Your task to perform on an android device: toggle pop-ups in chrome Image 0: 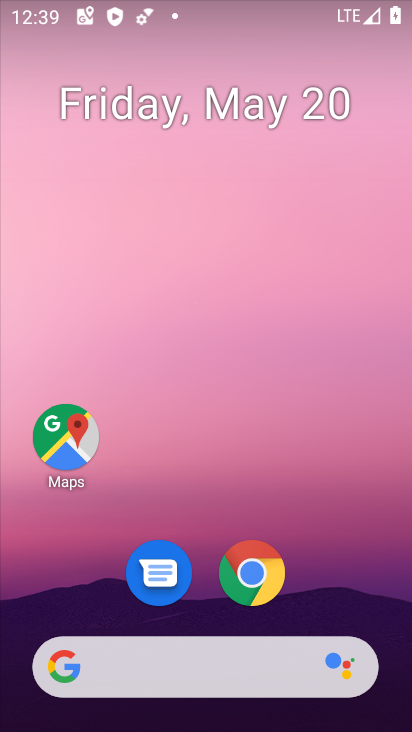
Step 0: drag from (216, 610) to (299, 108)
Your task to perform on an android device: toggle pop-ups in chrome Image 1: 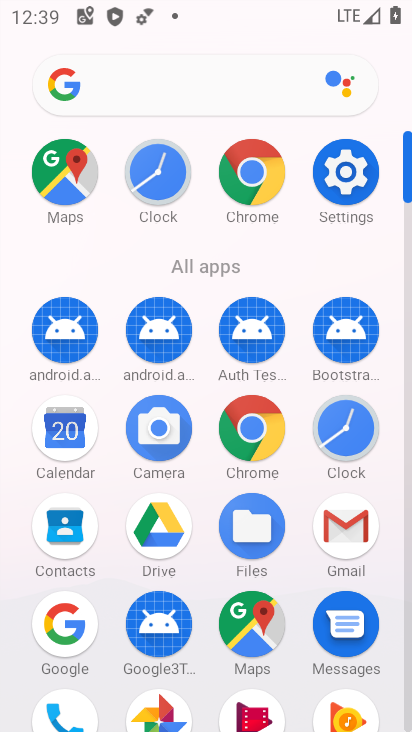
Step 1: click (247, 202)
Your task to perform on an android device: toggle pop-ups in chrome Image 2: 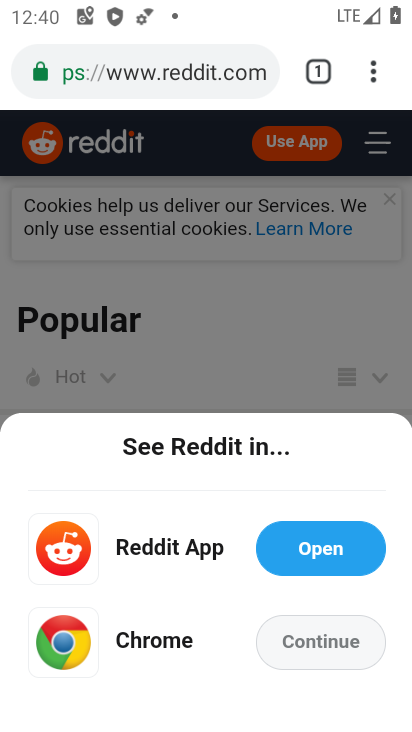
Step 2: click (370, 81)
Your task to perform on an android device: toggle pop-ups in chrome Image 3: 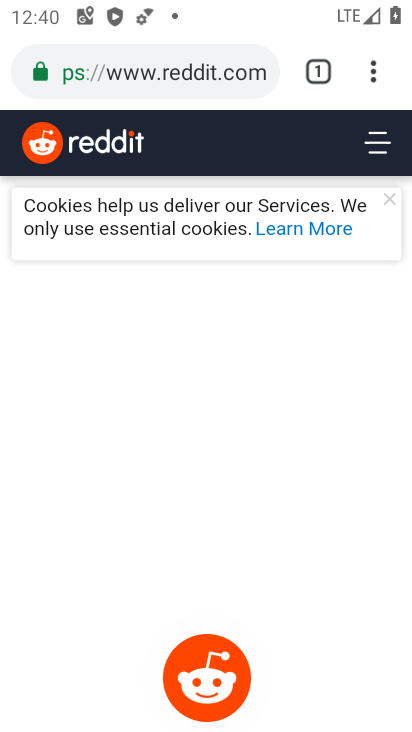
Step 3: click (374, 70)
Your task to perform on an android device: toggle pop-ups in chrome Image 4: 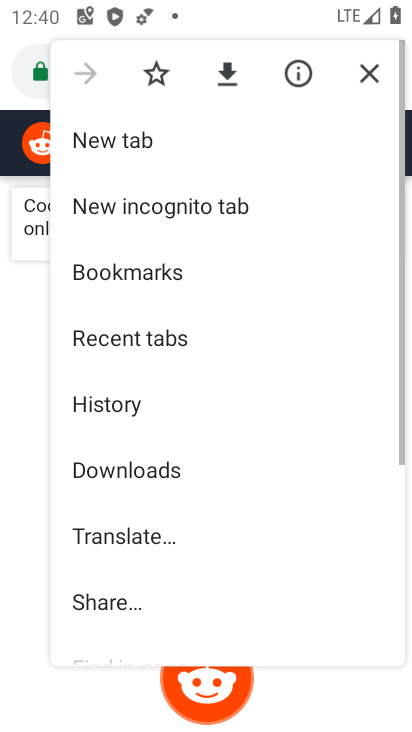
Step 4: drag from (122, 530) to (191, 205)
Your task to perform on an android device: toggle pop-ups in chrome Image 5: 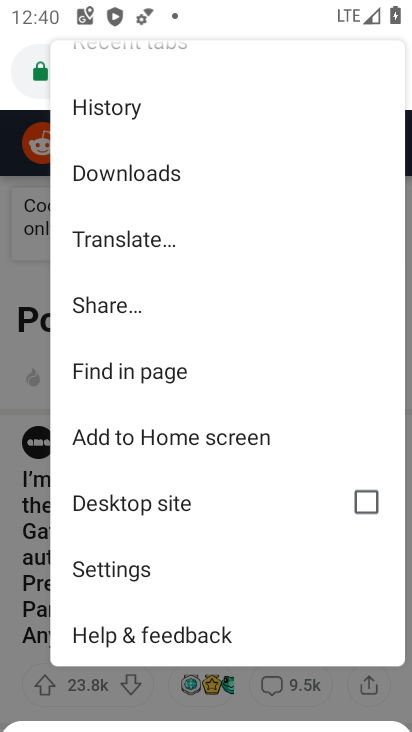
Step 5: click (138, 586)
Your task to perform on an android device: toggle pop-ups in chrome Image 6: 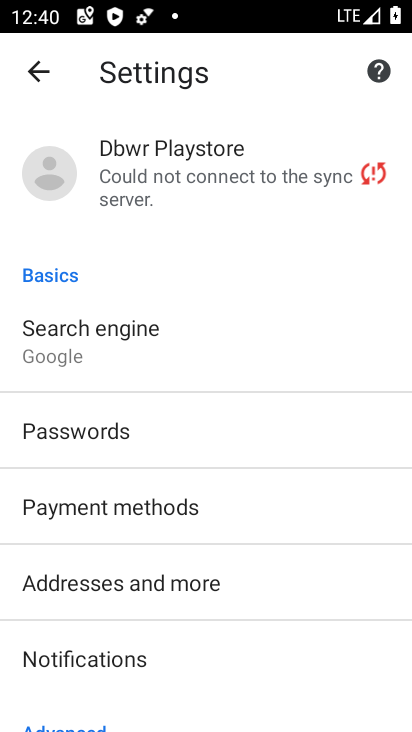
Step 6: drag from (136, 557) to (221, 217)
Your task to perform on an android device: toggle pop-ups in chrome Image 7: 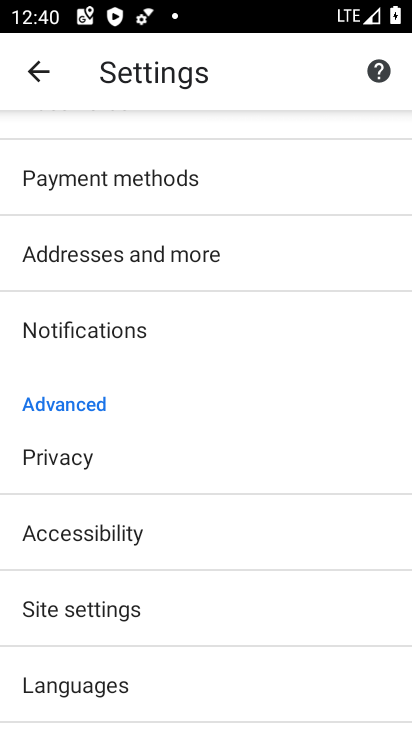
Step 7: drag from (126, 636) to (175, 470)
Your task to perform on an android device: toggle pop-ups in chrome Image 8: 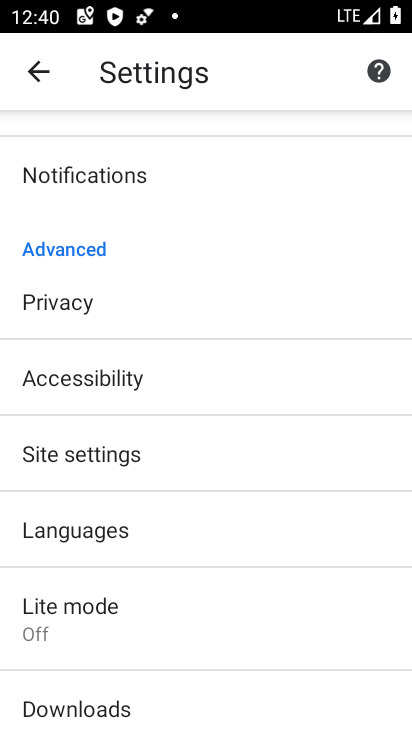
Step 8: drag from (113, 559) to (150, 442)
Your task to perform on an android device: toggle pop-ups in chrome Image 9: 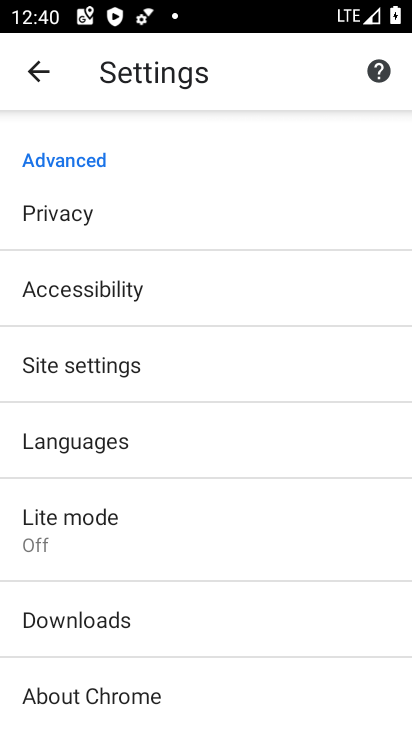
Step 9: click (120, 361)
Your task to perform on an android device: toggle pop-ups in chrome Image 10: 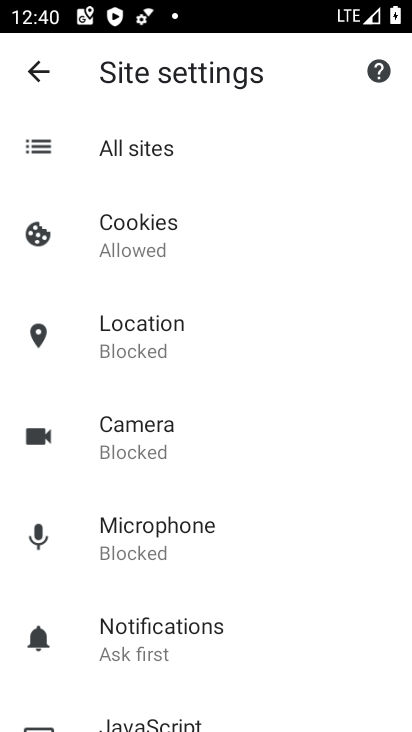
Step 10: drag from (174, 639) to (227, 415)
Your task to perform on an android device: toggle pop-ups in chrome Image 11: 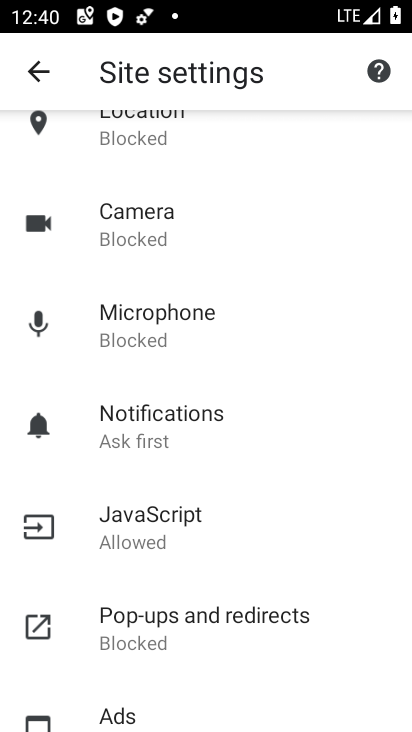
Step 11: click (156, 632)
Your task to perform on an android device: toggle pop-ups in chrome Image 12: 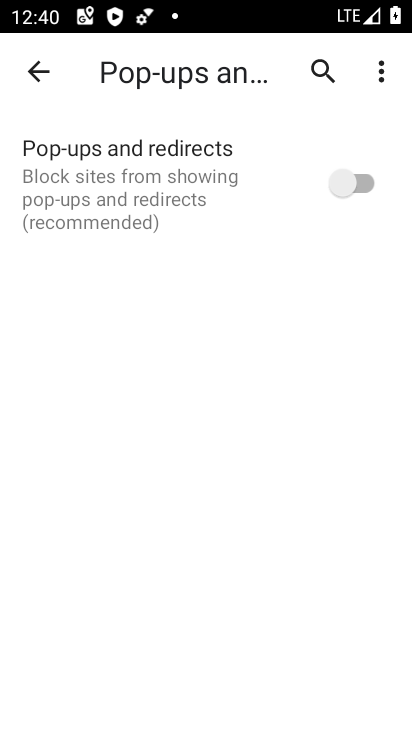
Step 12: click (380, 183)
Your task to perform on an android device: toggle pop-ups in chrome Image 13: 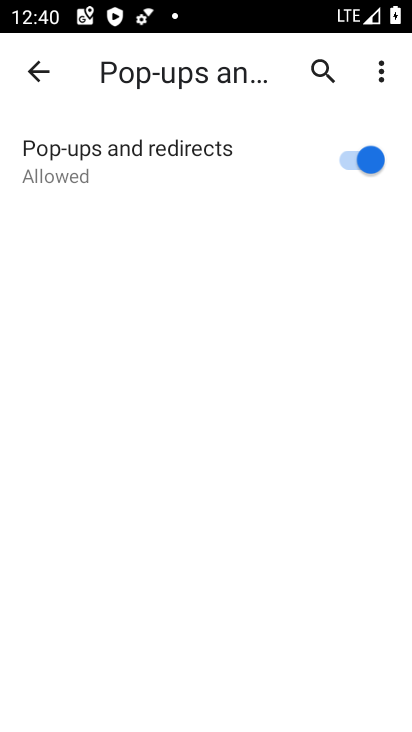
Step 13: task complete